Your task to perform on an android device: change the upload size in google photos Image 0: 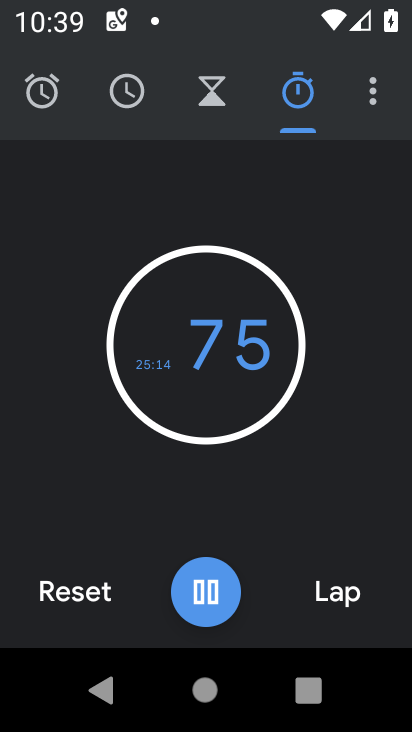
Step 0: press back button
Your task to perform on an android device: change the upload size in google photos Image 1: 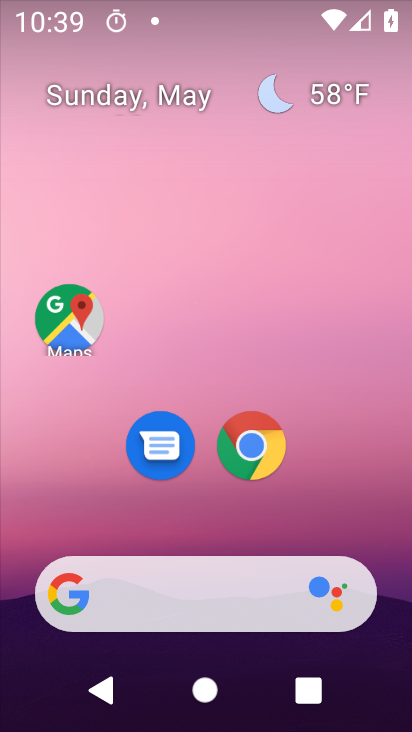
Step 1: drag from (334, 503) to (219, 11)
Your task to perform on an android device: change the upload size in google photos Image 2: 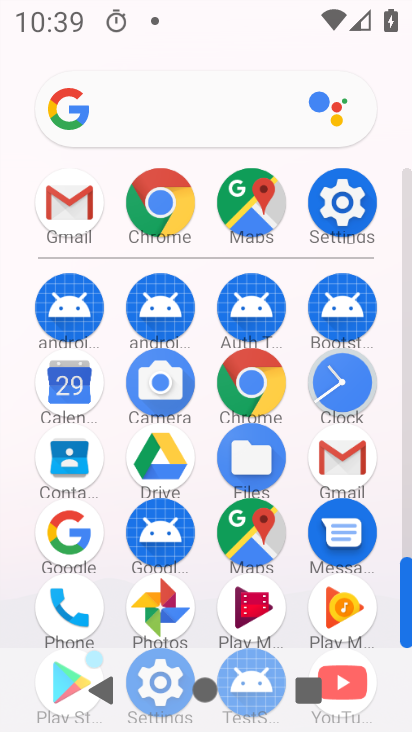
Step 2: drag from (9, 565) to (9, 188)
Your task to perform on an android device: change the upload size in google photos Image 3: 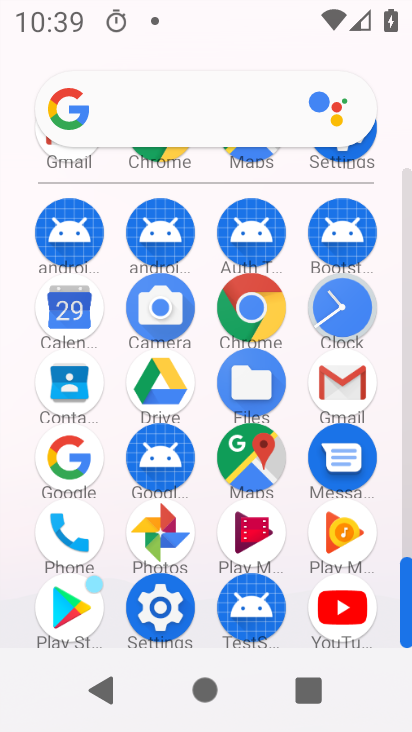
Step 3: click (161, 526)
Your task to perform on an android device: change the upload size in google photos Image 4: 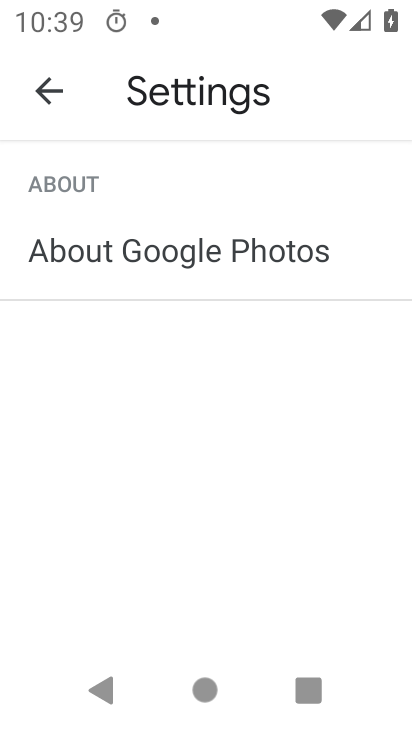
Step 4: click (42, 91)
Your task to perform on an android device: change the upload size in google photos Image 5: 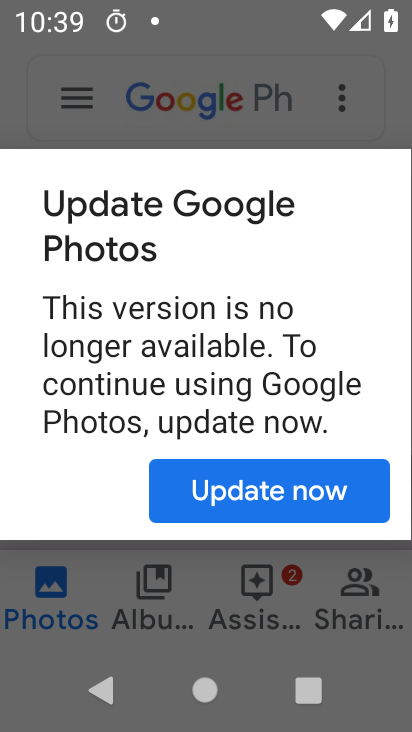
Step 5: click (281, 481)
Your task to perform on an android device: change the upload size in google photos Image 6: 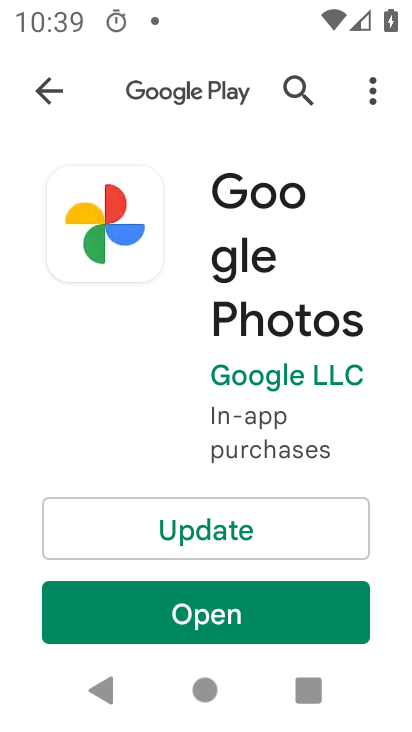
Step 6: click (233, 527)
Your task to perform on an android device: change the upload size in google photos Image 7: 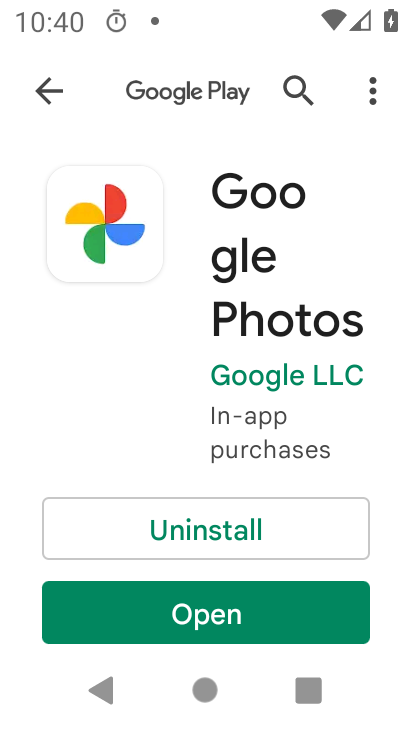
Step 7: click (266, 601)
Your task to perform on an android device: change the upload size in google photos Image 8: 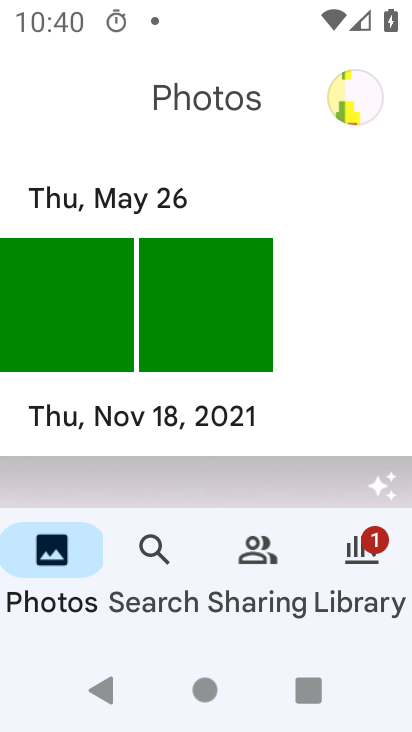
Step 8: click (344, 93)
Your task to perform on an android device: change the upload size in google photos Image 9: 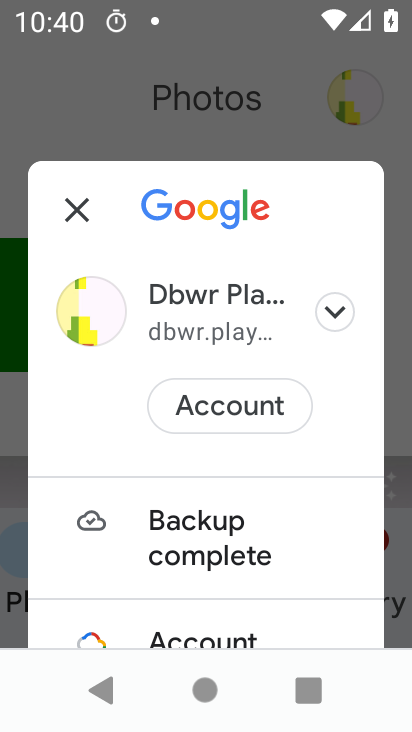
Step 9: drag from (280, 562) to (269, 193)
Your task to perform on an android device: change the upload size in google photos Image 10: 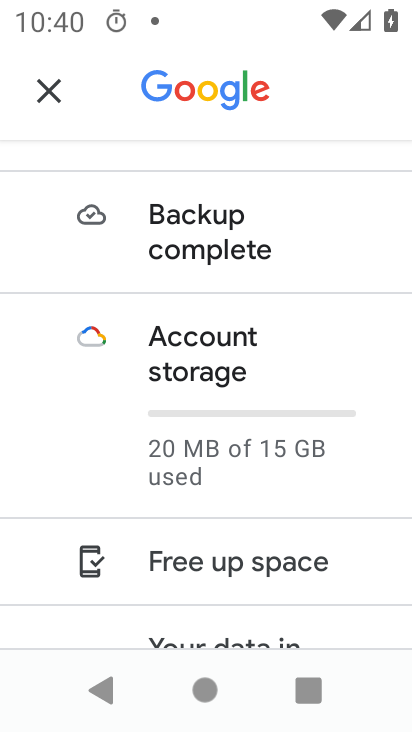
Step 10: drag from (272, 623) to (316, 201)
Your task to perform on an android device: change the upload size in google photos Image 11: 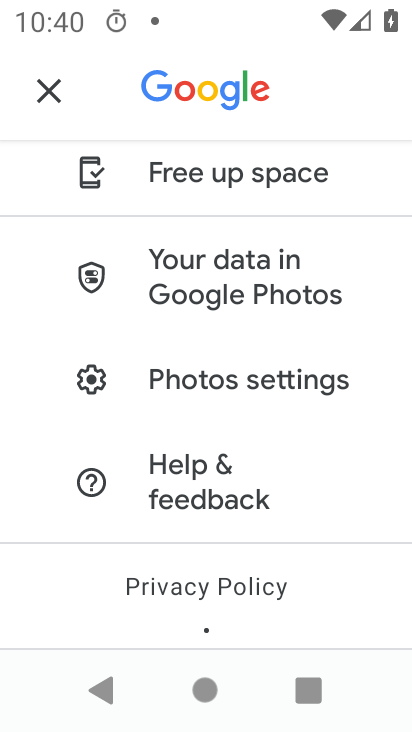
Step 11: click (274, 376)
Your task to perform on an android device: change the upload size in google photos Image 12: 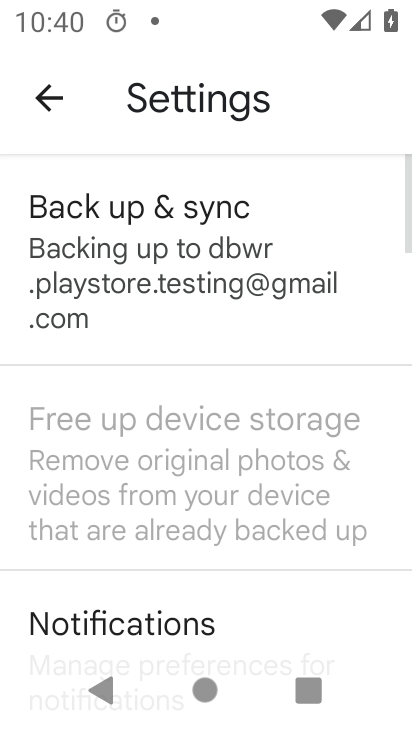
Step 12: click (270, 273)
Your task to perform on an android device: change the upload size in google photos Image 13: 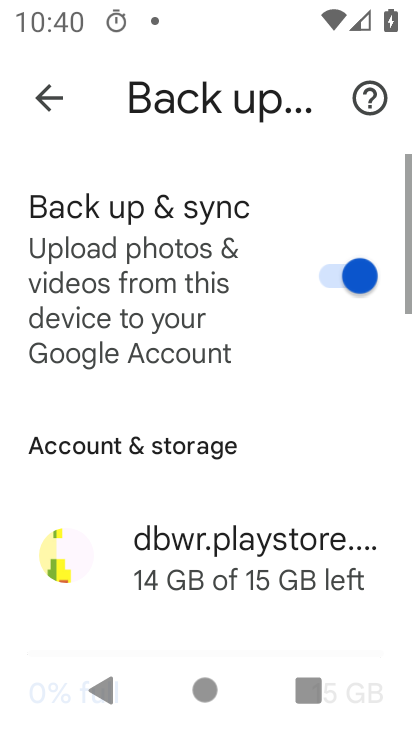
Step 13: drag from (294, 611) to (263, 224)
Your task to perform on an android device: change the upload size in google photos Image 14: 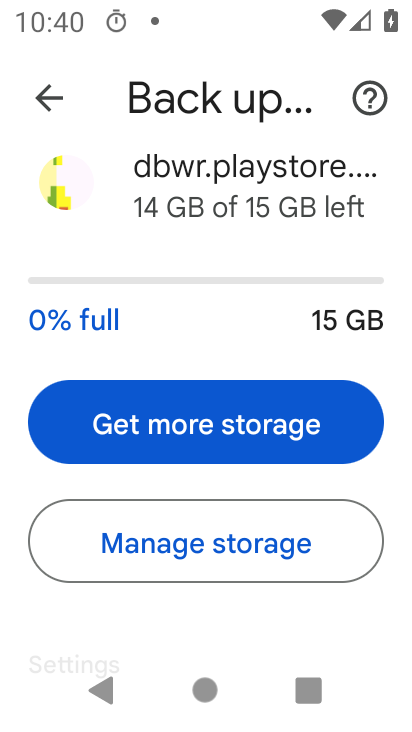
Step 14: drag from (249, 524) to (229, 126)
Your task to perform on an android device: change the upload size in google photos Image 15: 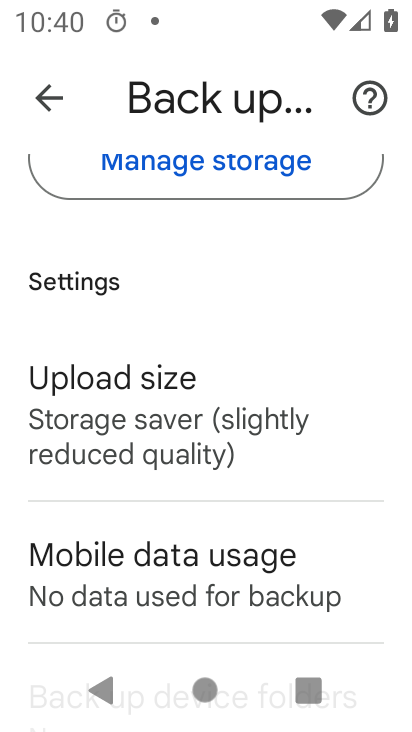
Step 15: click (239, 391)
Your task to perform on an android device: change the upload size in google photos Image 16: 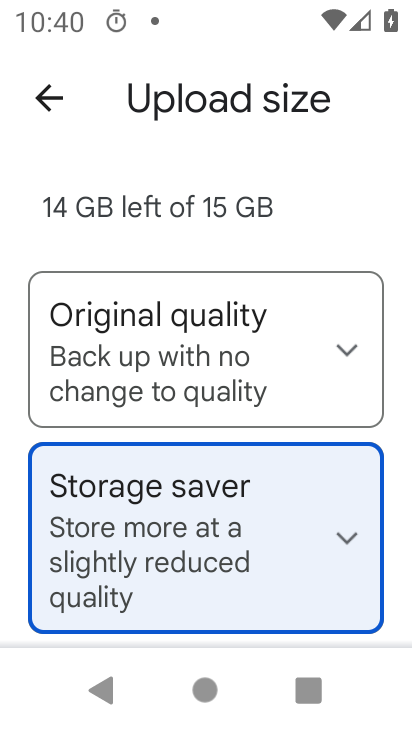
Step 16: click (236, 377)
Your task to perform on an android device: change the upload size in google photos Image 17: 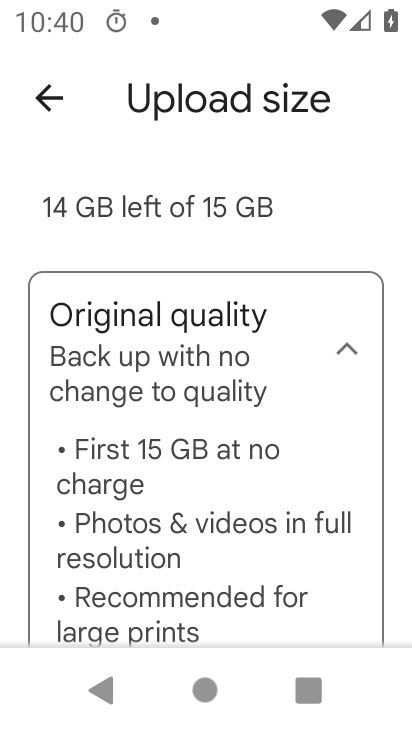
Step 17: drag from (245, 530) to (262, 254)
Your task to perform on an android device: change the upload size in google photos Image 18: 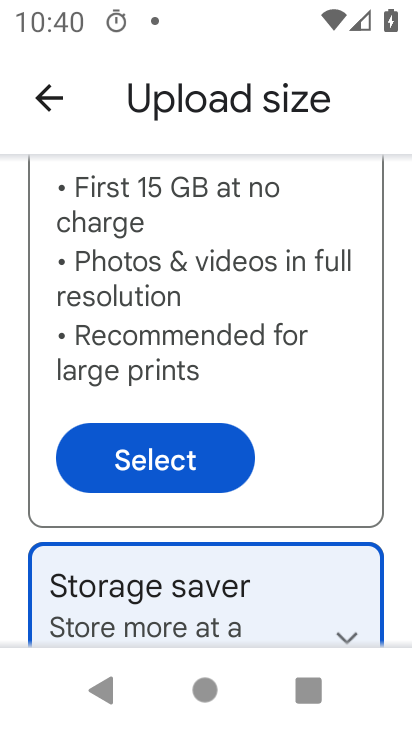
Step 18: click (178, 466)
Your task to perform on an android device: change the upload size in google photos Image 19: 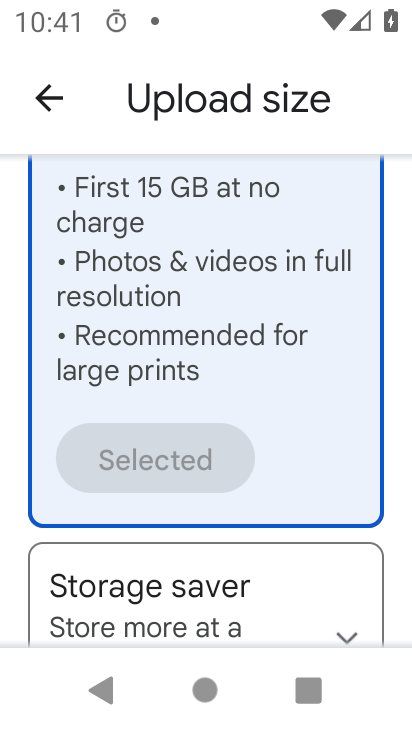
Step 19: task complete